Your task to perform on an android device: Show me productivity apps on the Play Store Image 0: 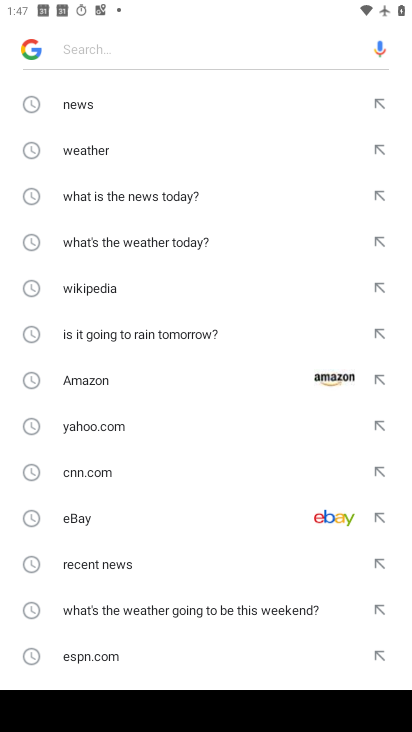
Step 0: press home button
Your task to perform on an android device: Show me productivity apps on the Play Store Image 1: 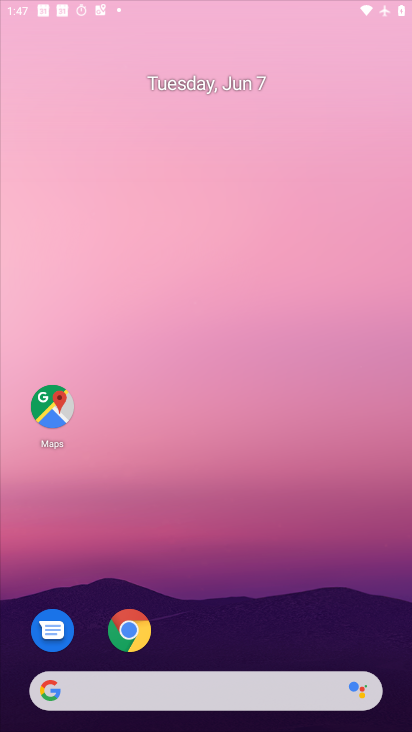
Step 1: drag from (366, 626) to (267, 48)
Your task to perform on an android device: Show me productivity apps on the Play Store Image 2: 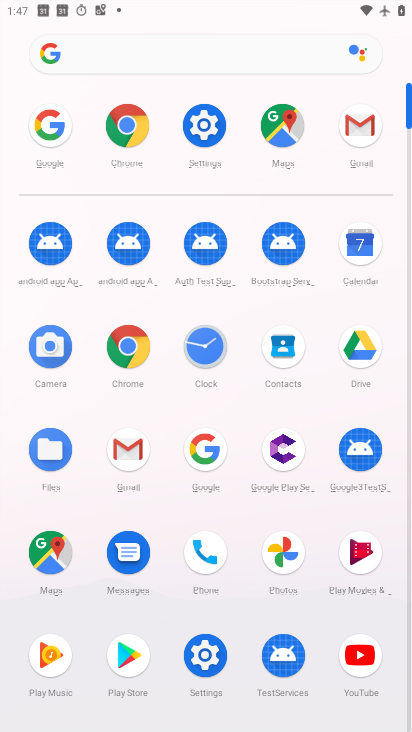
Step 2: click (133, 675)
Your task to perform on an android device: Show me productivity apps on the Play Store Image 3: 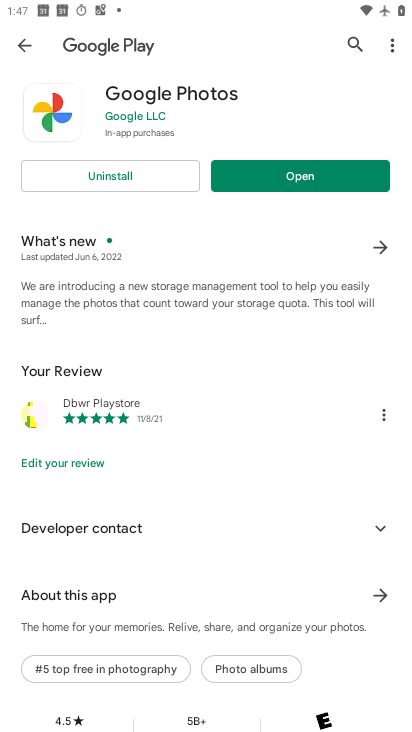
Step 3: task complete